Your task to perform on an android device: read, delete, or share a saved page in the chrome app Image 0: 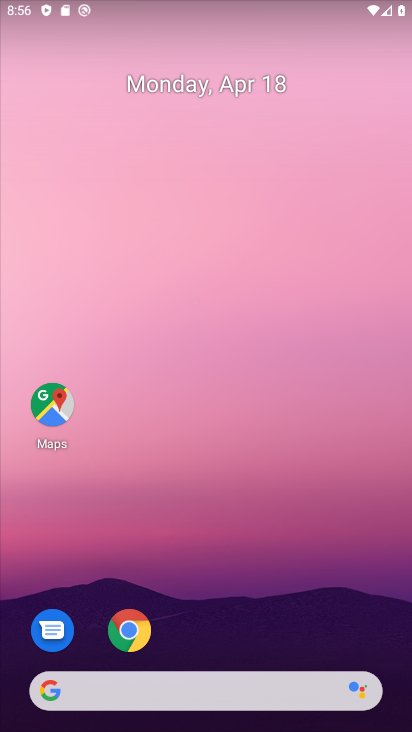
Step 0: click (124, 623)
Your task to perform on an android device: read, delete, or share a saved page in the chrome app Image 1: 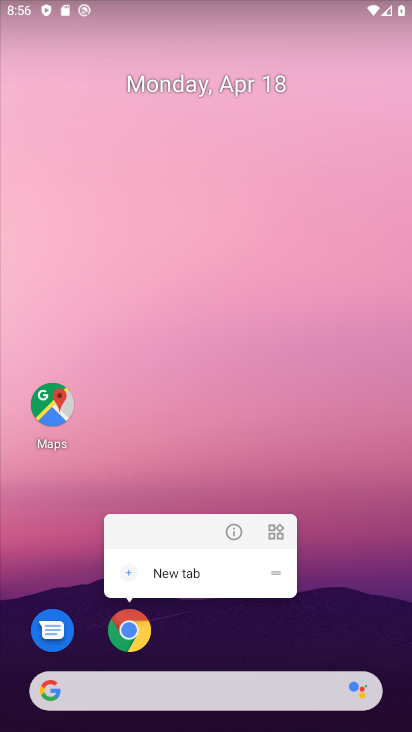
Step 1: click (124, 623)
Your task to perform on an android device: read, delete, or share a saved page in the chrome app Image 2: 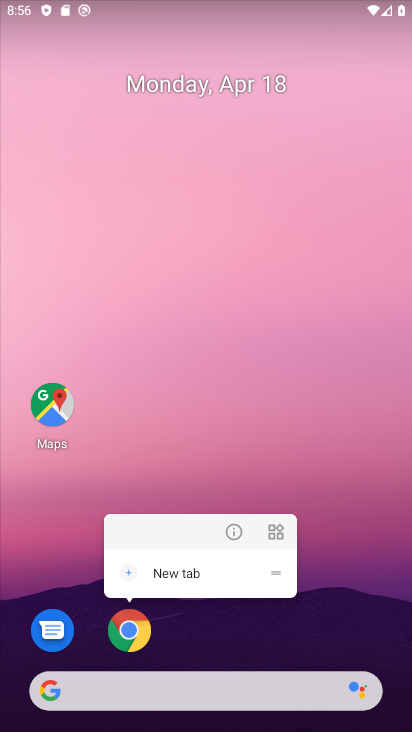
Step 2: click (124, 621)
Your task to perform on an android device: read, delete, or share a saved page in the chrome app Image 3: 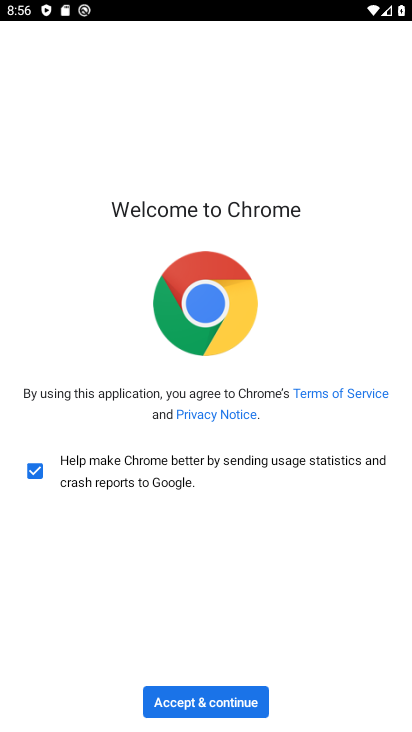
Step 3: click (231, 700)
Your task to perform on an android device: read, delete, or share a saved page in the chrome app Image 4: 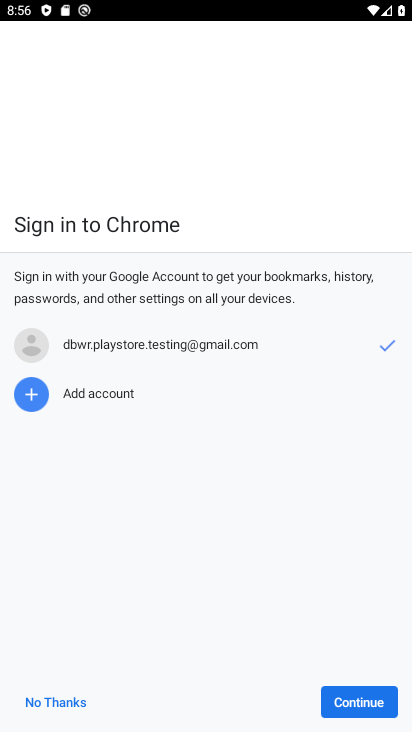
Step 4: click (366, 699)
Your task to perform on an android device: read, delete, or share a saved page in the chrome app Image 5: 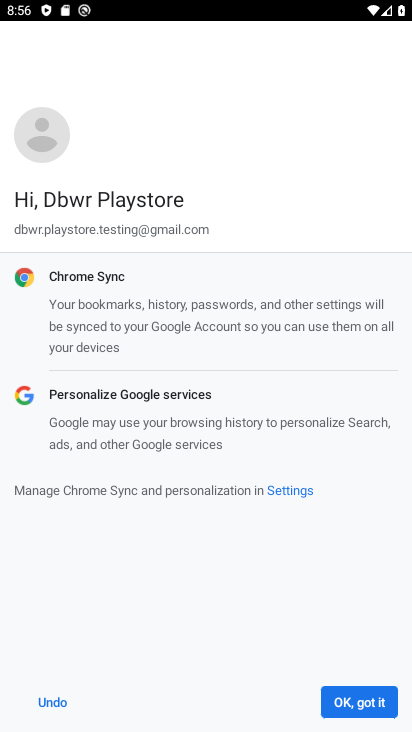
Step 5: click (366, 699)
Your task to perform on an android device: read, delete, or share a saved page in the chrome app Image 6: 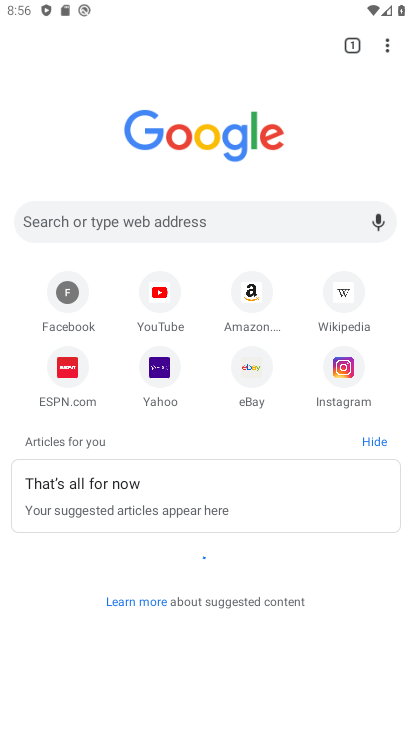
Step 6: click (387, 41)
Your task to perform on an android device: read, delete, or share a saved page in the chrome app Image 7: 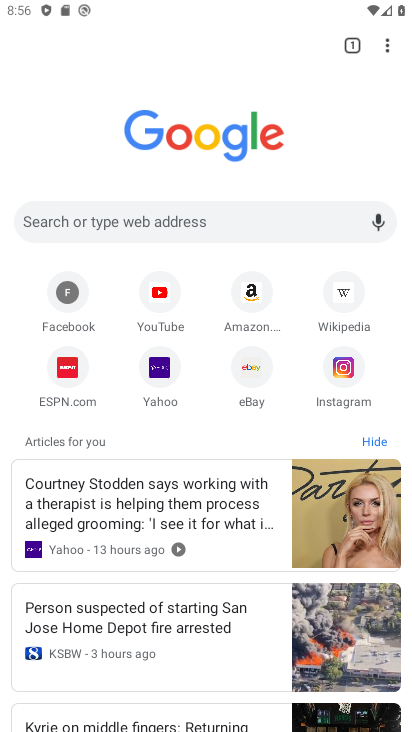
Step 7: click (387, 41)
Your task to perform on an android device: read, delete, or share a saved page in the chrome app Image 8: 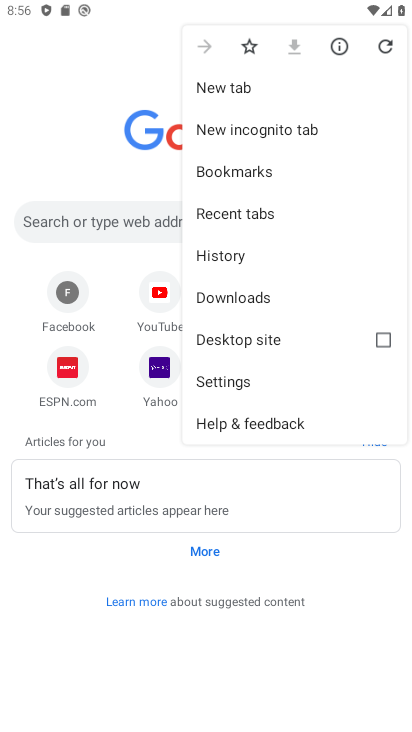
Step 8: click (256, 290)
Your task to perform on an android device: read, delete, or share a saved page in the chrome app Image 9: 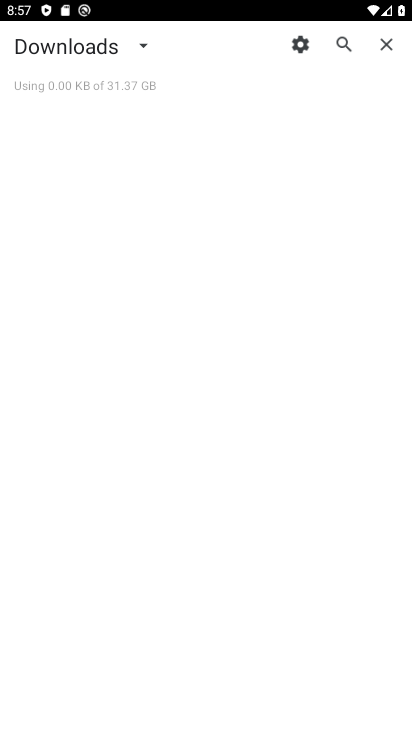
Step 9: task complete